Your task to perform on an android device: Go to Amazon Image 0: 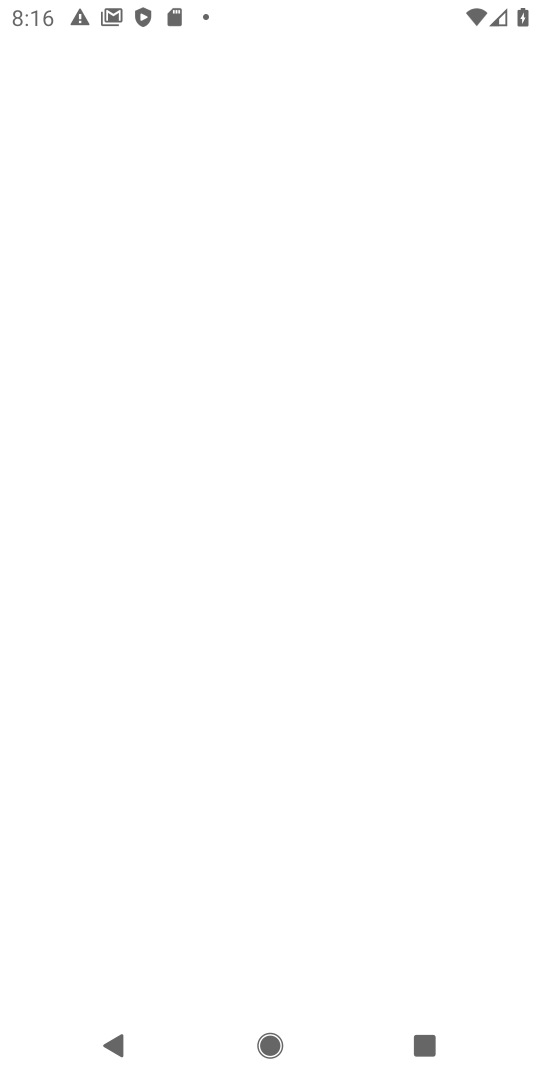
Step 0: drag from (43, 863) to (274, 1037)
Your task to perform on an android device: Go to Amazon Image 1: 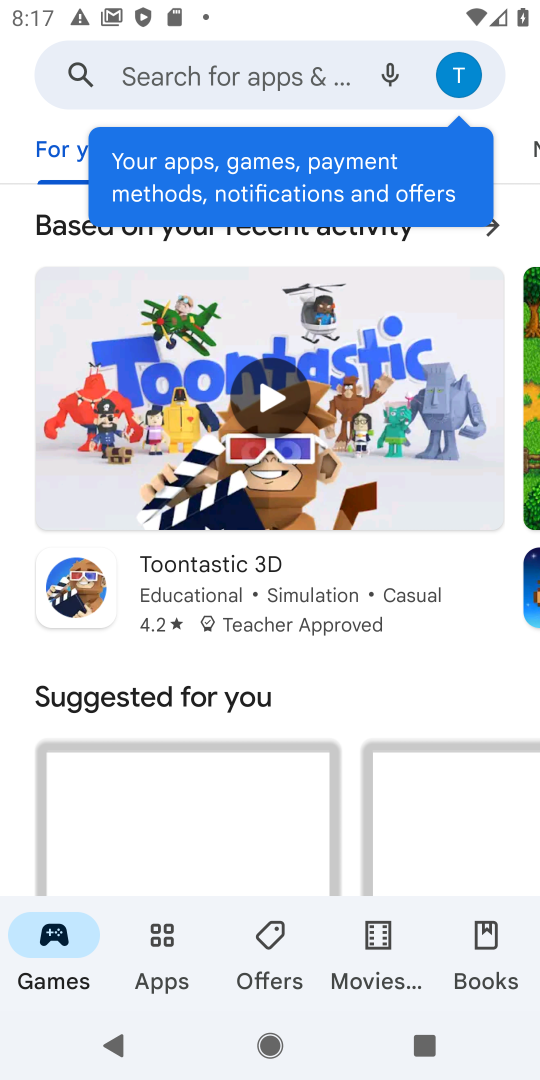
Step 1: click (270, 1046)
Your task to perform on an android device: Go to Amazon Image 2: 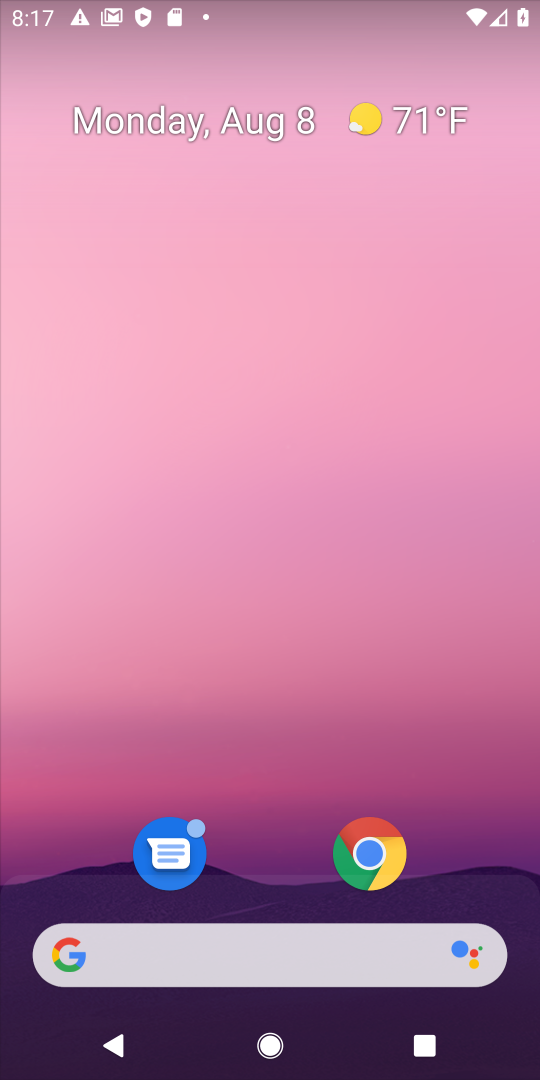
Step 2: click (345, 873)
Your task to perform on an android device: Go to Amazon Image 3: 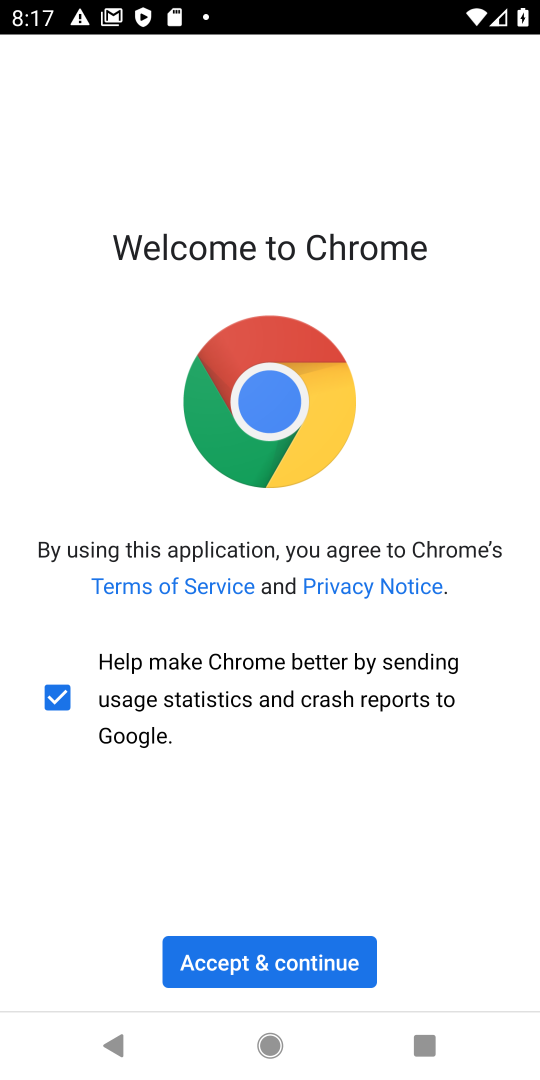
Step 3: click (291, 963)
Your task to perform on an android device: Go to Amazon Image 4: 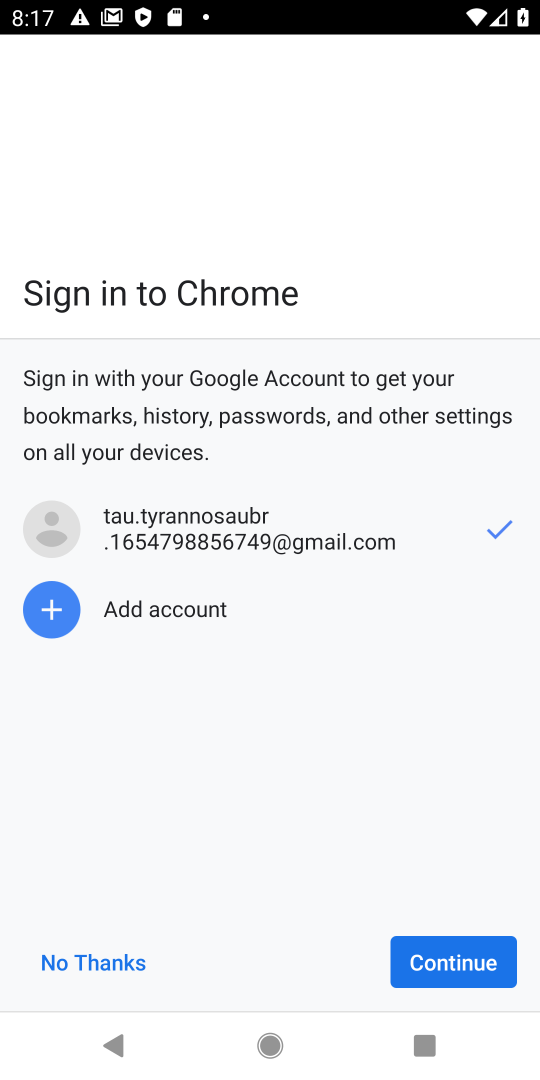
Step 4: click (456, 953)
Your task to perform on an android device: Go to Amazon Image 5: 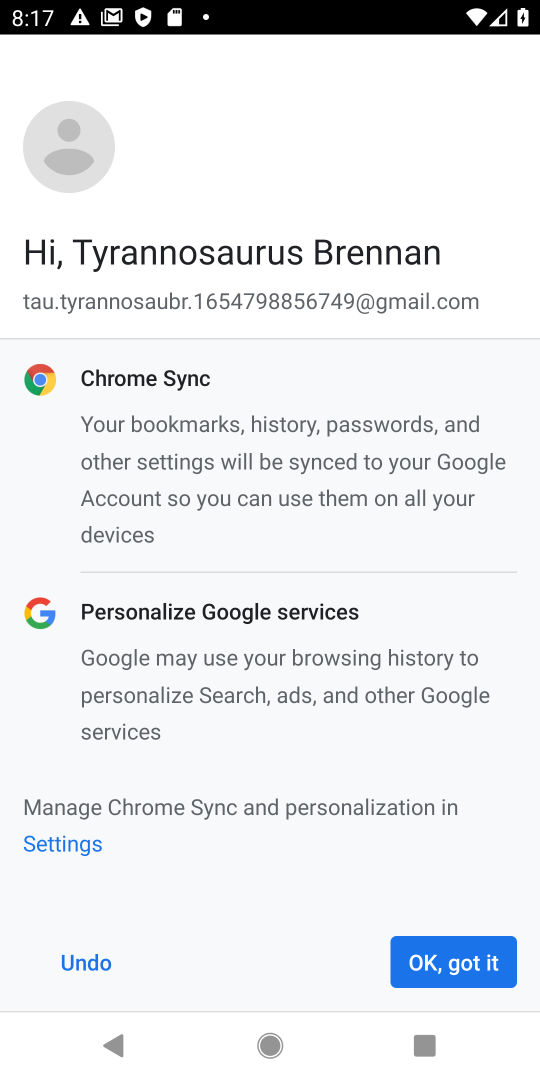
Step 5: click (451, 960)
Your task to perform on an android device: Go to Amazon Image 6: 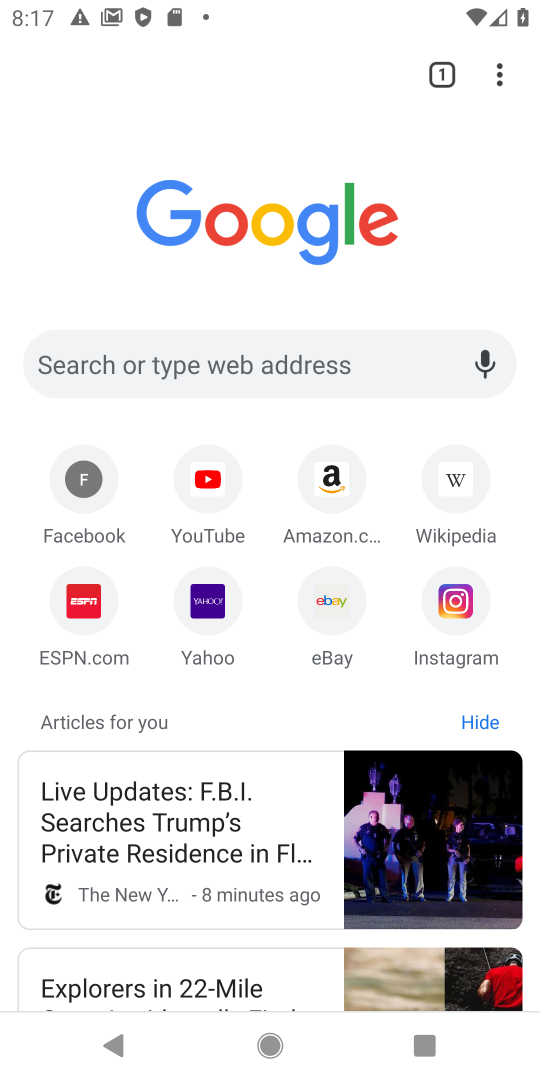
Step 6: click (328, 468)
Your task to perform on an android device: Go to Amazon Image 7: 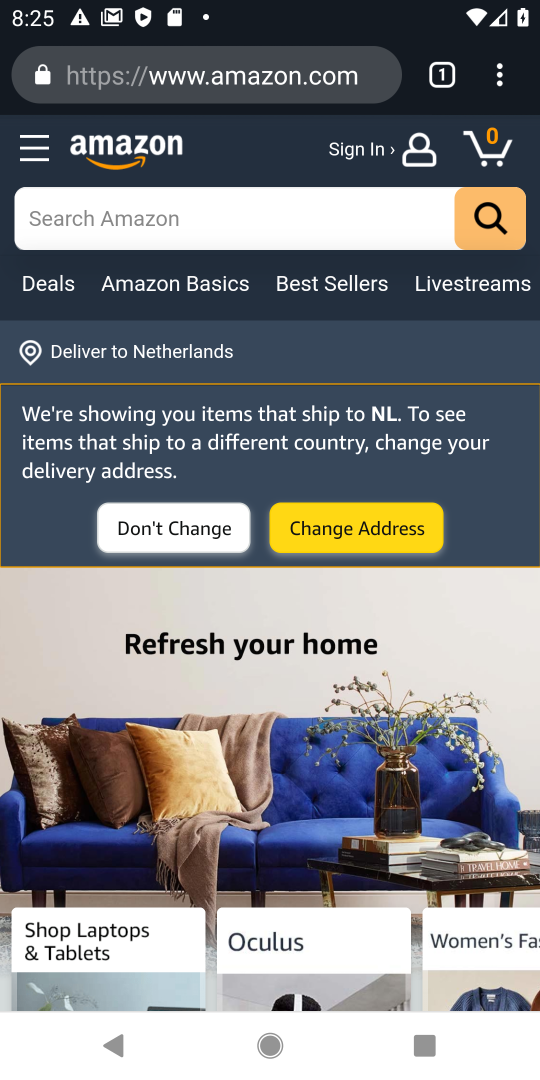
Step 7: task complete